Your task to perform on an android device: Add acer nitro to the cart on bestbuy, then select checkout. Image 0: 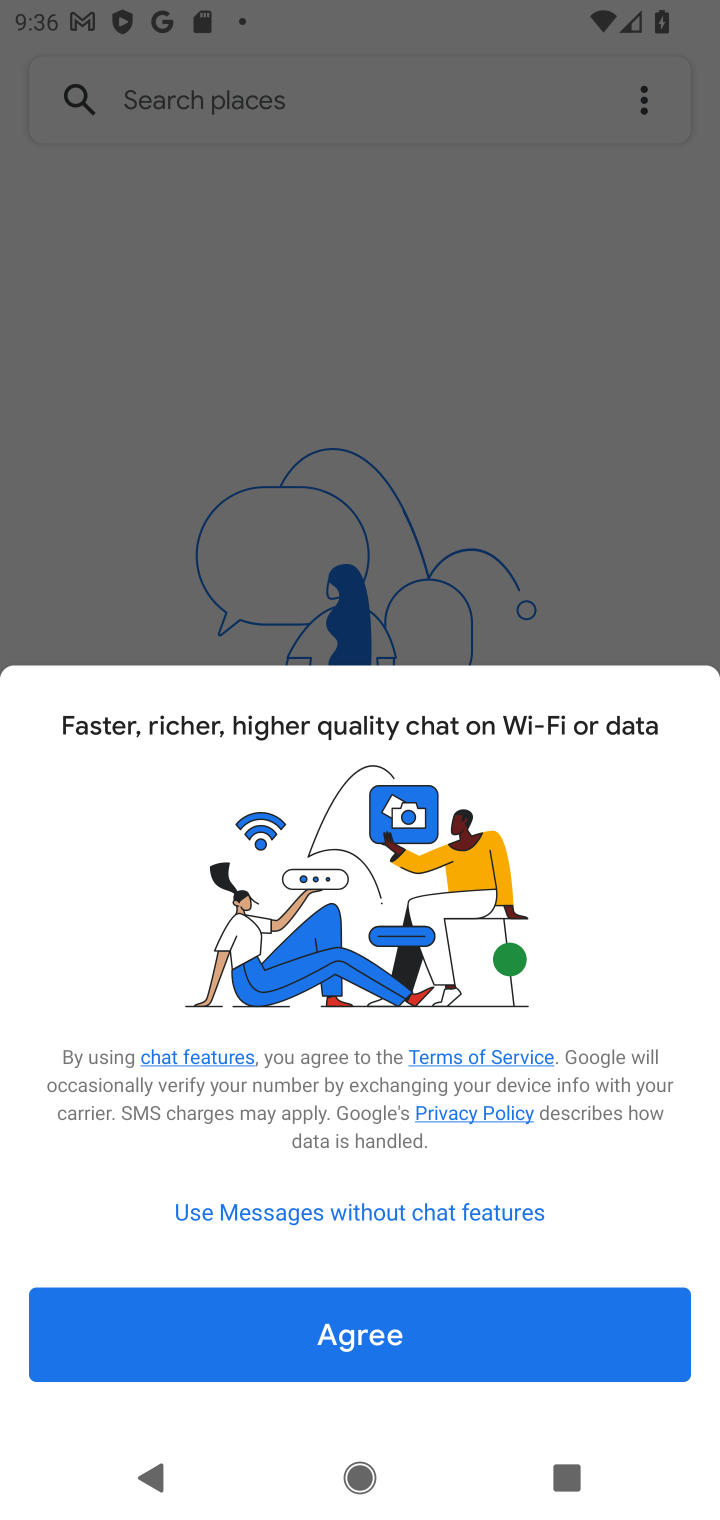
Step 0: click (516, 1350)
Your task to perform on an android device: Add acer nitro to the cart on bestbuy, then select checkout. Image 1: 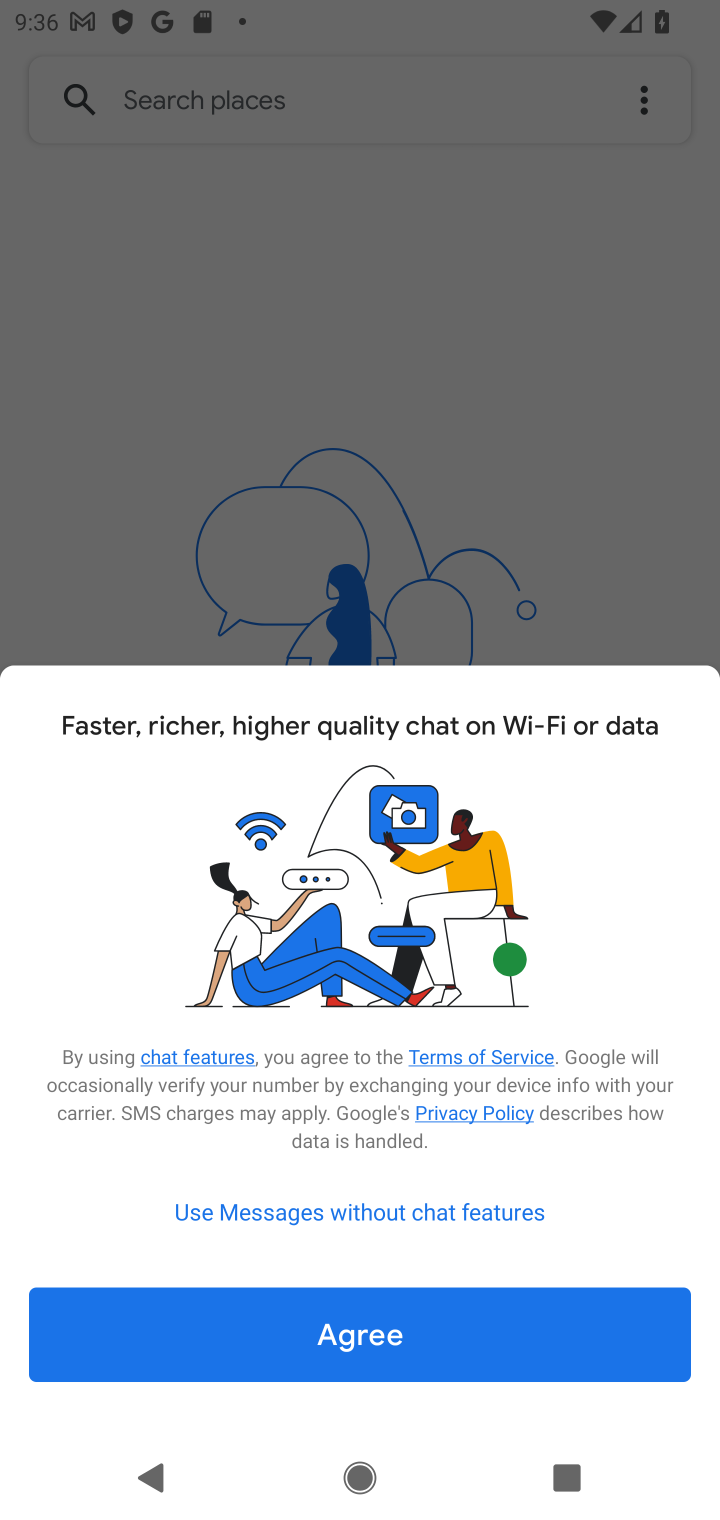
Step 1: press home button
Your task to perform on an android device: Add acer nitro to the cart on bestbuy, then select checkout. Image 2: 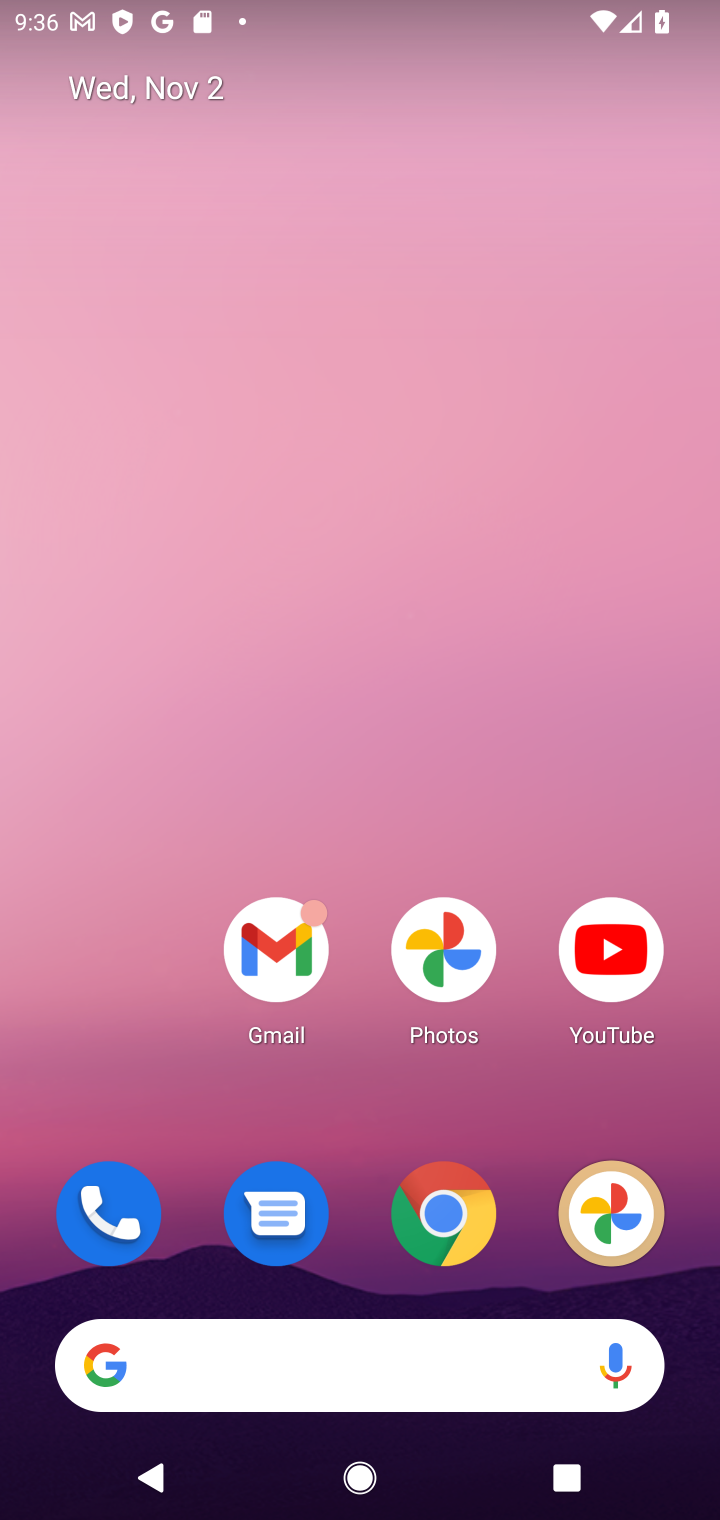
Step 2: click (431, 1208)
Your task to perform on an android device: Add acer nitro to the cart on bestbuy, then select checkout. Image 3: 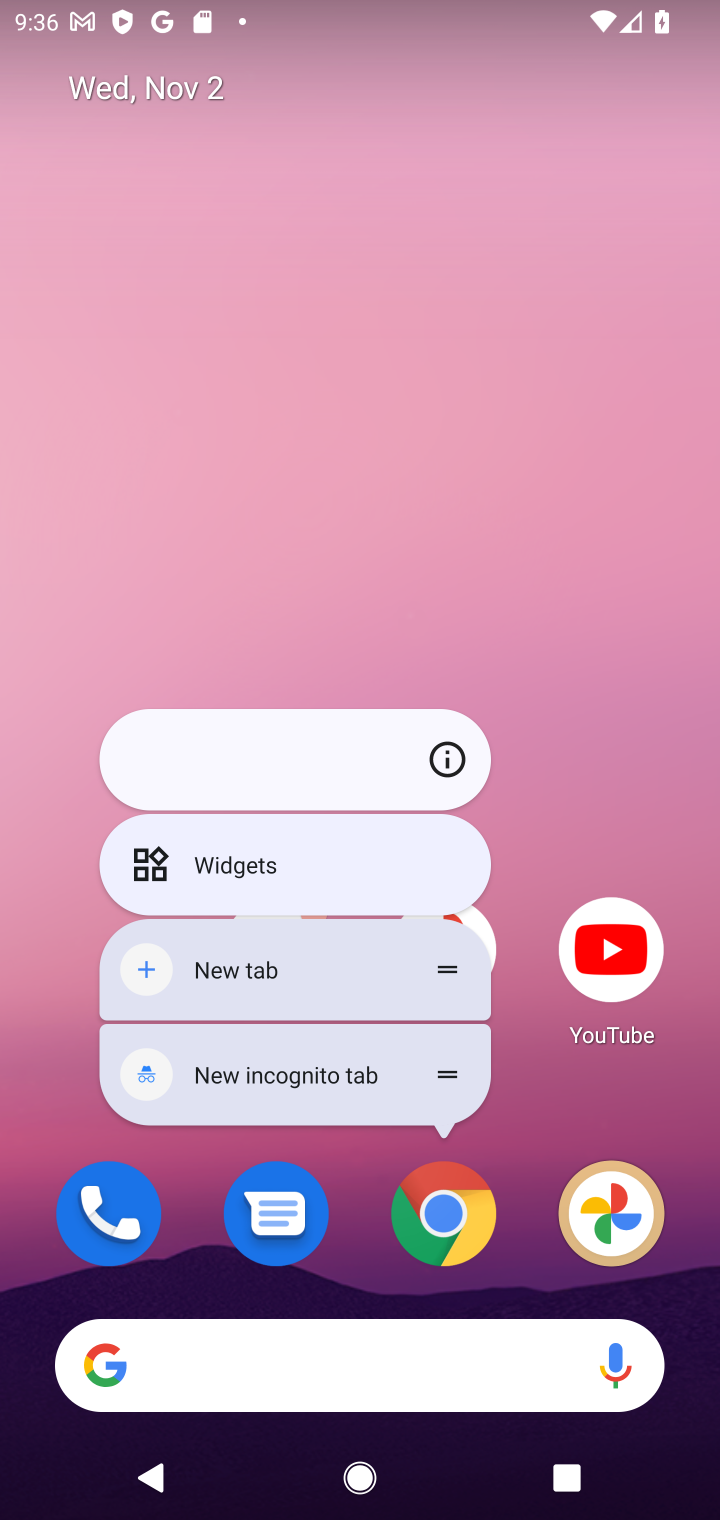
Step 3: click (449, 1234)
Your task to perform on an android device: Add acer nitro to the cart on bestbuy, then select checkout. Image 4: 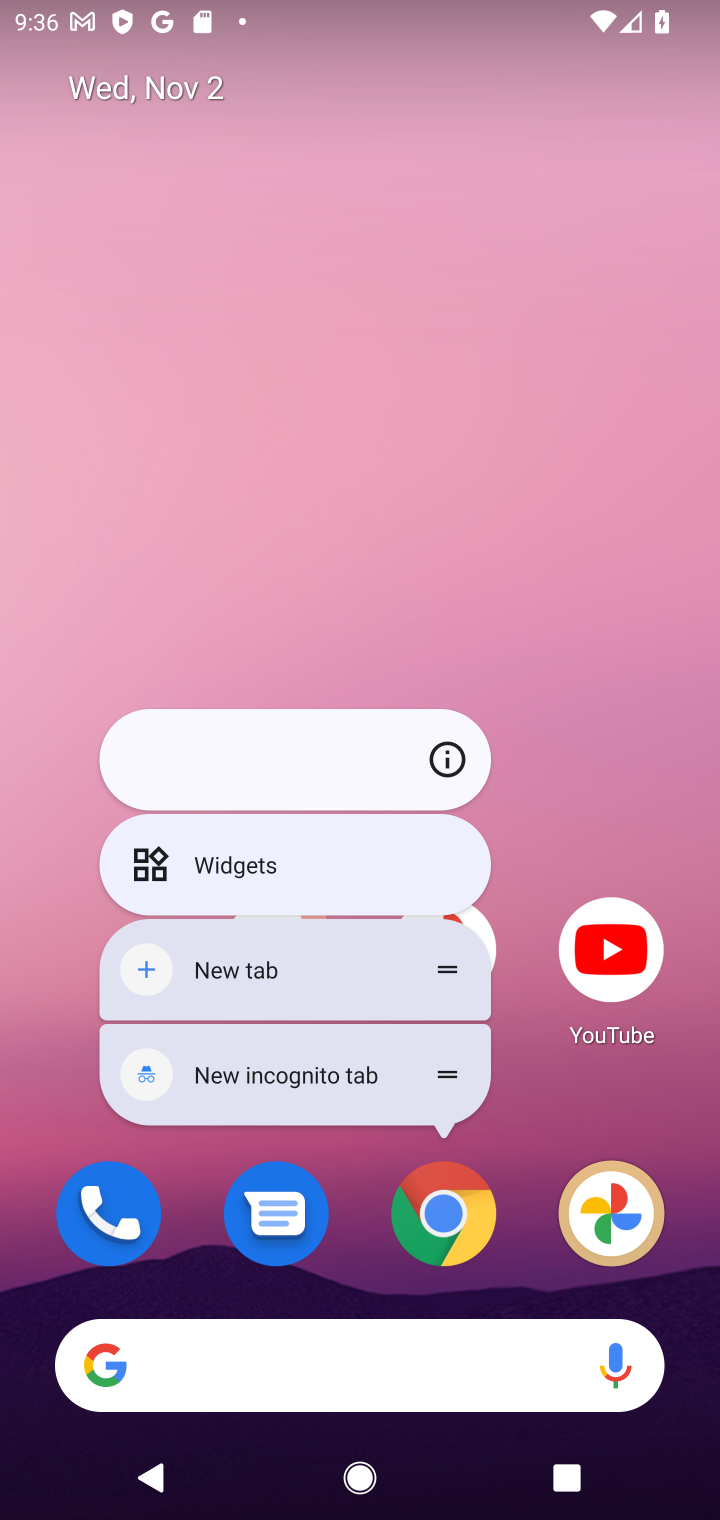
Step 4: click (442, 1212)
Your task to perform on an android device: Add acer nitro to the cart on bestbuy, then select checkout. Image 5: 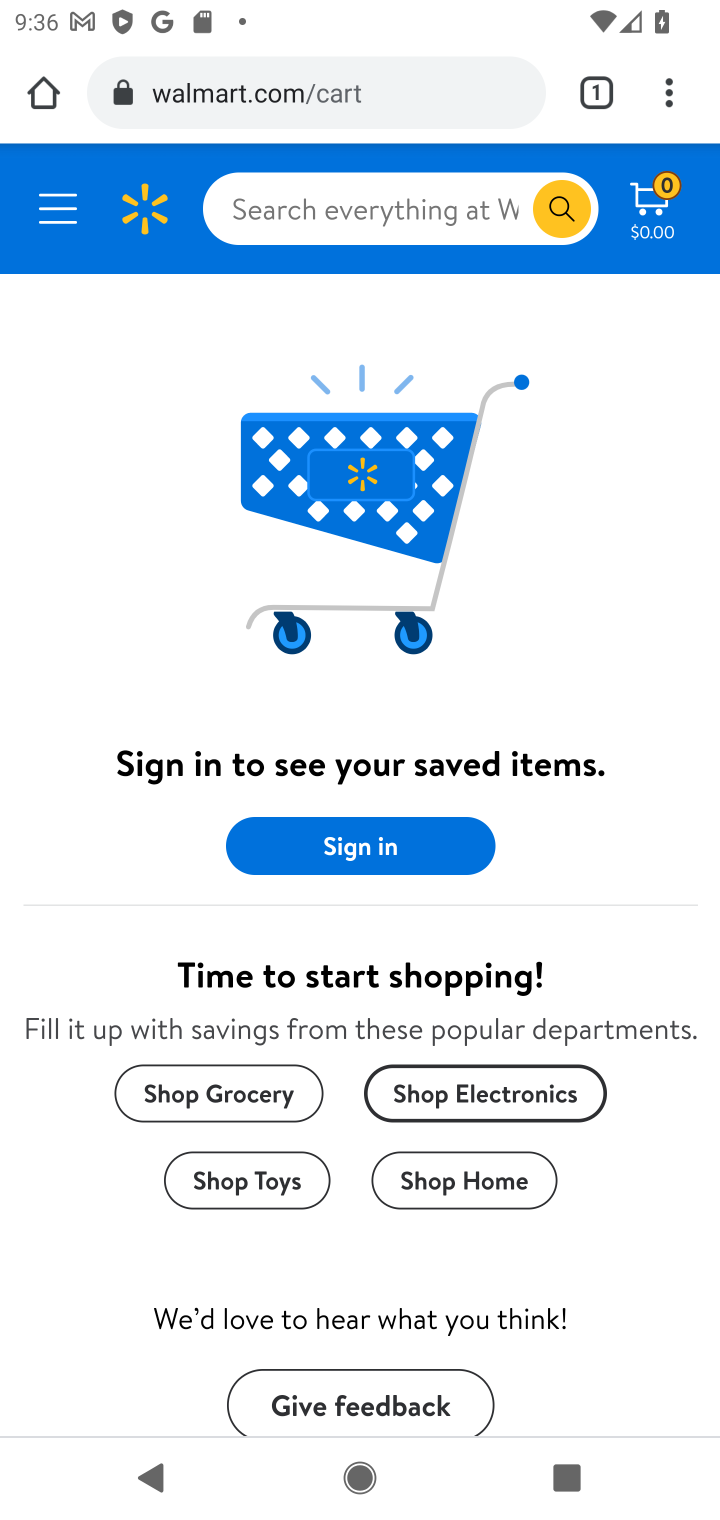
Step 5: click (289, 92)
Your task to perform on an android device: Add acer nitro to the cart on bestbuy, then select checkout. Image 6: 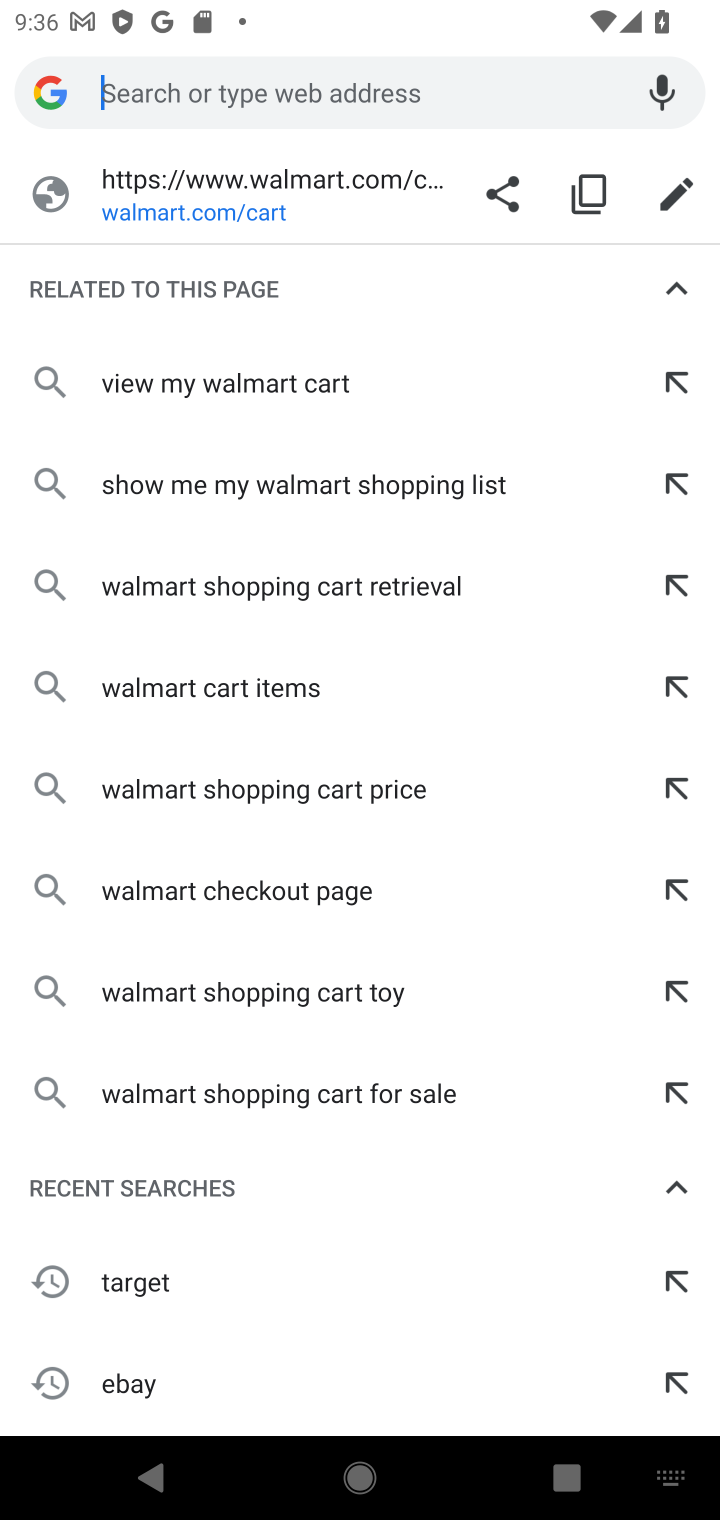
Step 6: type "bestbuy"
Your task to perform on an android device: Add acer nitro to the cart on bestbuy, then select checkout. Image 7: 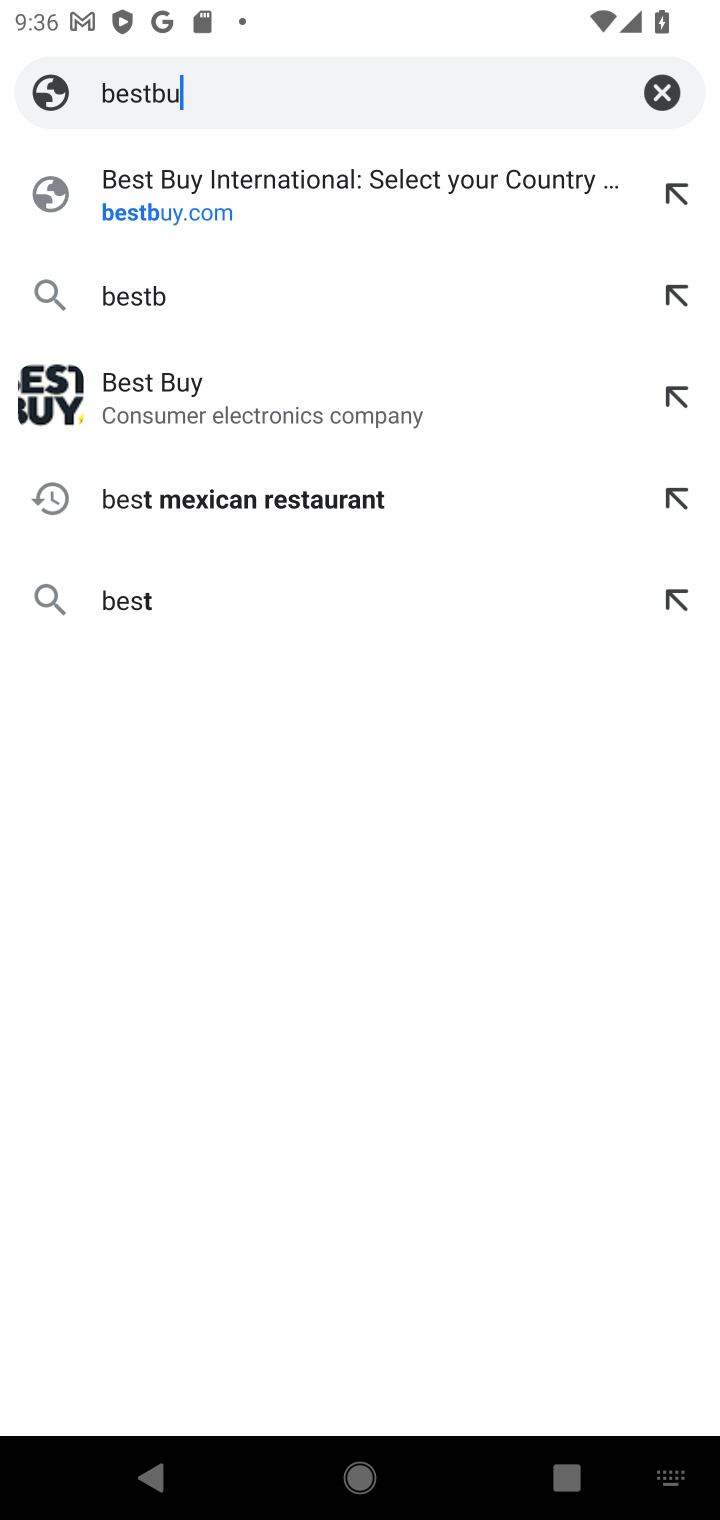
Step 7: type ""
Your task to perform on an android device: Add acer nitro to the cart on bestbuy, then select checkout. Image 8: 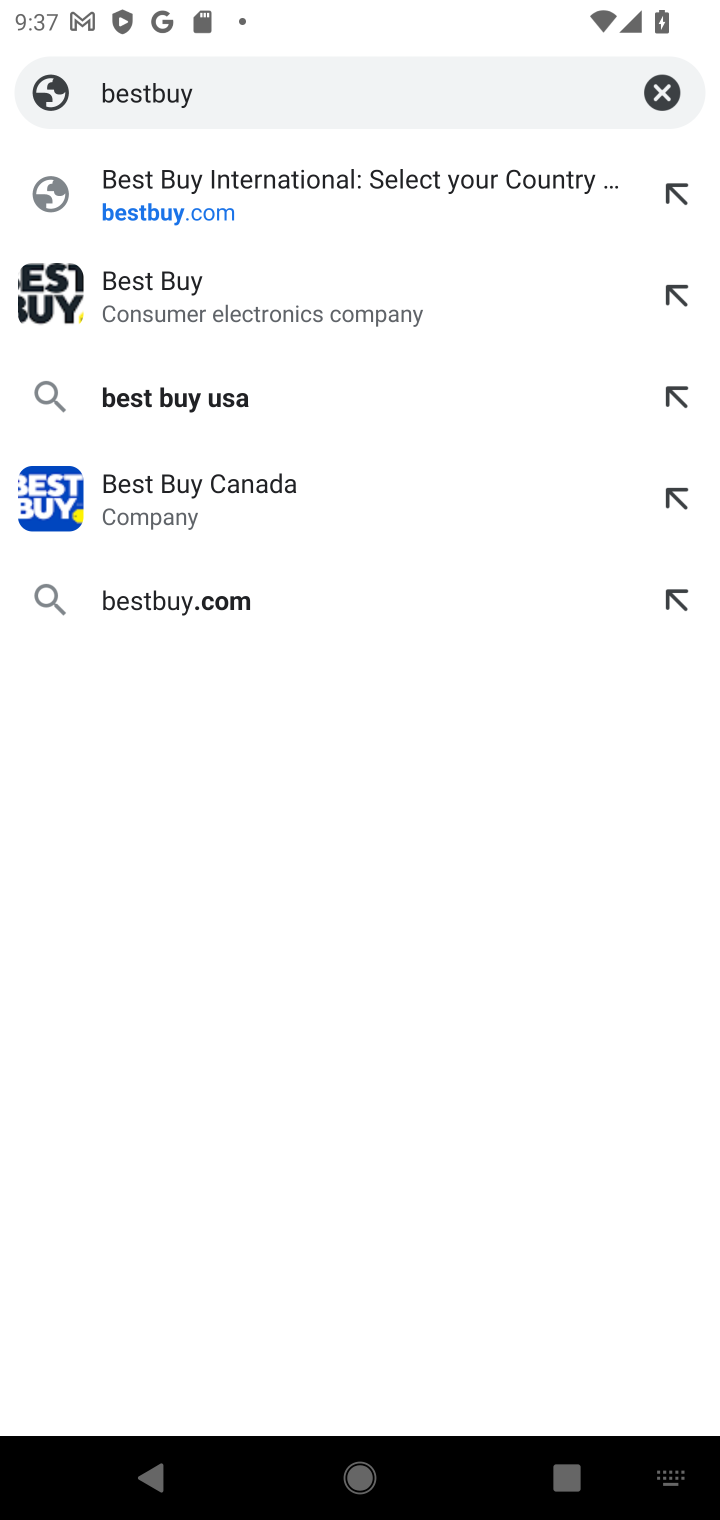
Step 8: click (439, 202)
Your task to perform on an android device: Add acer nitro to the cart on bestbuy, then select checkout. Image 9: 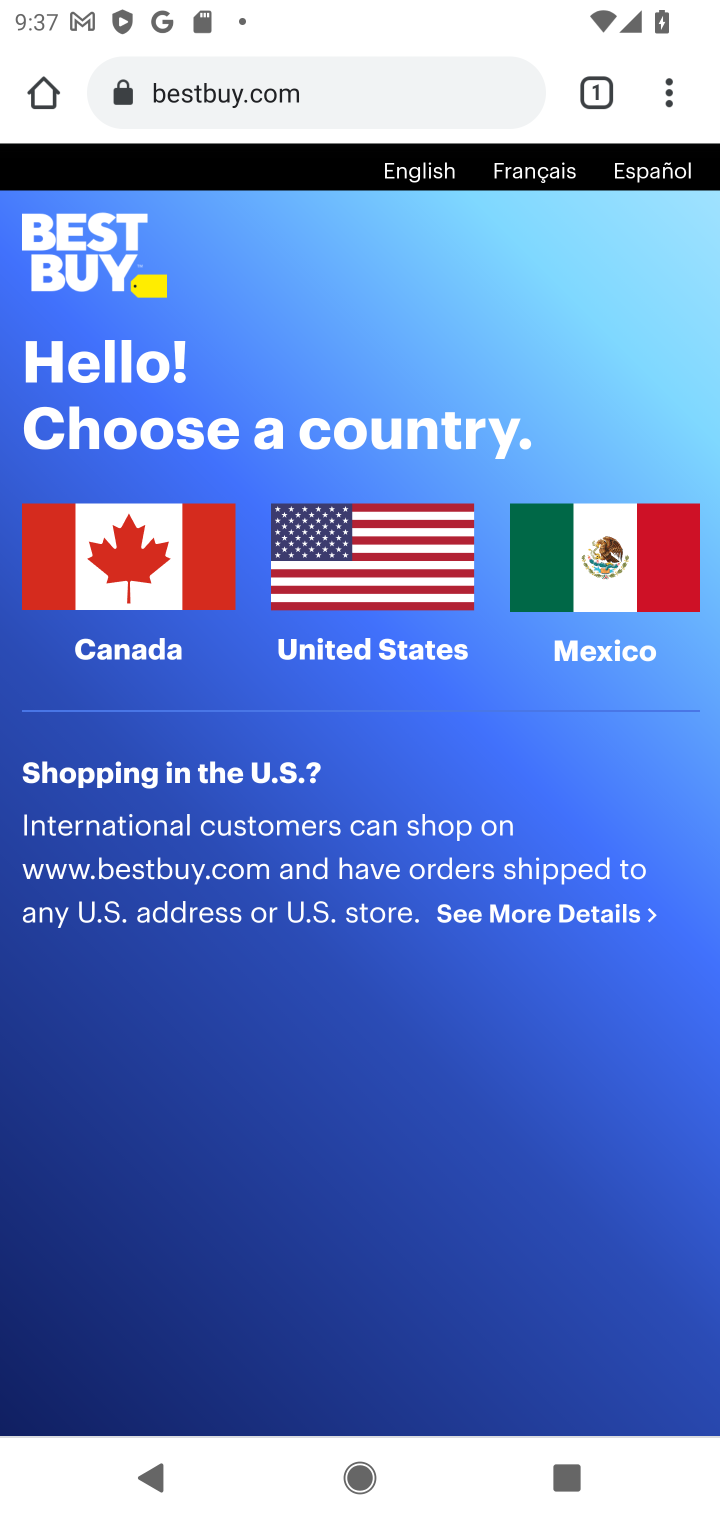
Step 9: click (313, 601)
Your task to perform on an android device: Add acer nitro to the cart on bestbuy, then select checkout. Image 10: 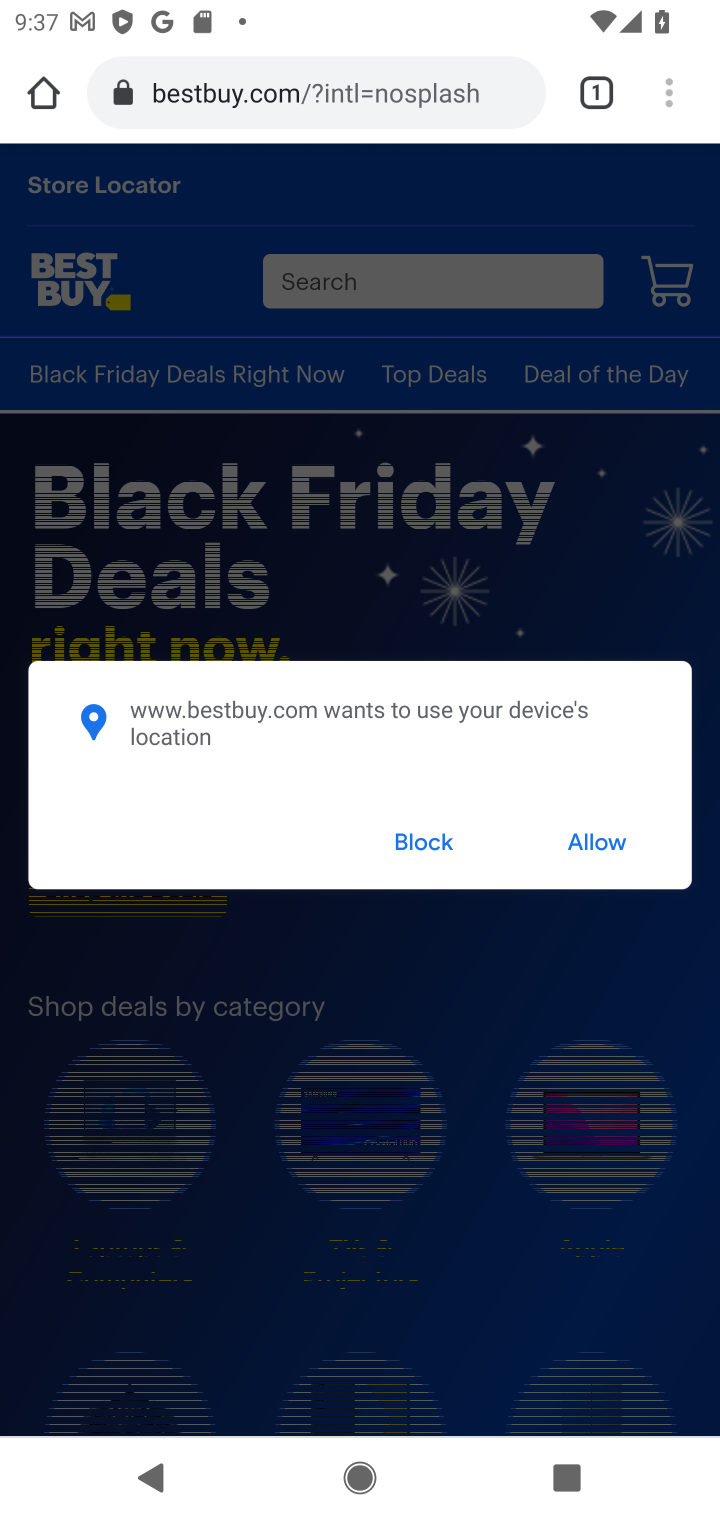
Step 10: click (407, 846)
Your task to perform on an android device: Add acer nitro to the cart on bestbuy, then select checkout. Image 11: 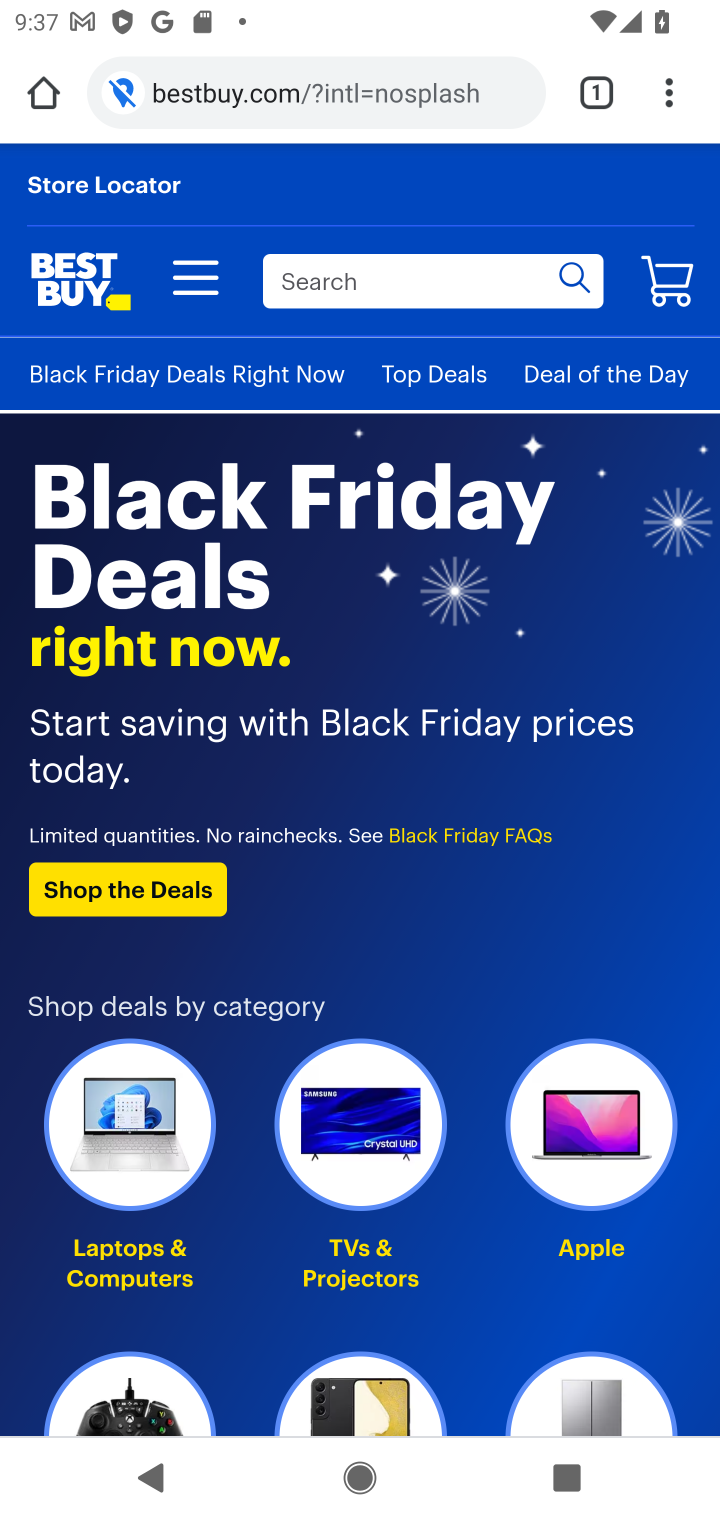
Step 11: click (391, 280)
Your task to perform on an android device: Add acer nitro to the cart on bestbuy, then select checkout. Image 12: 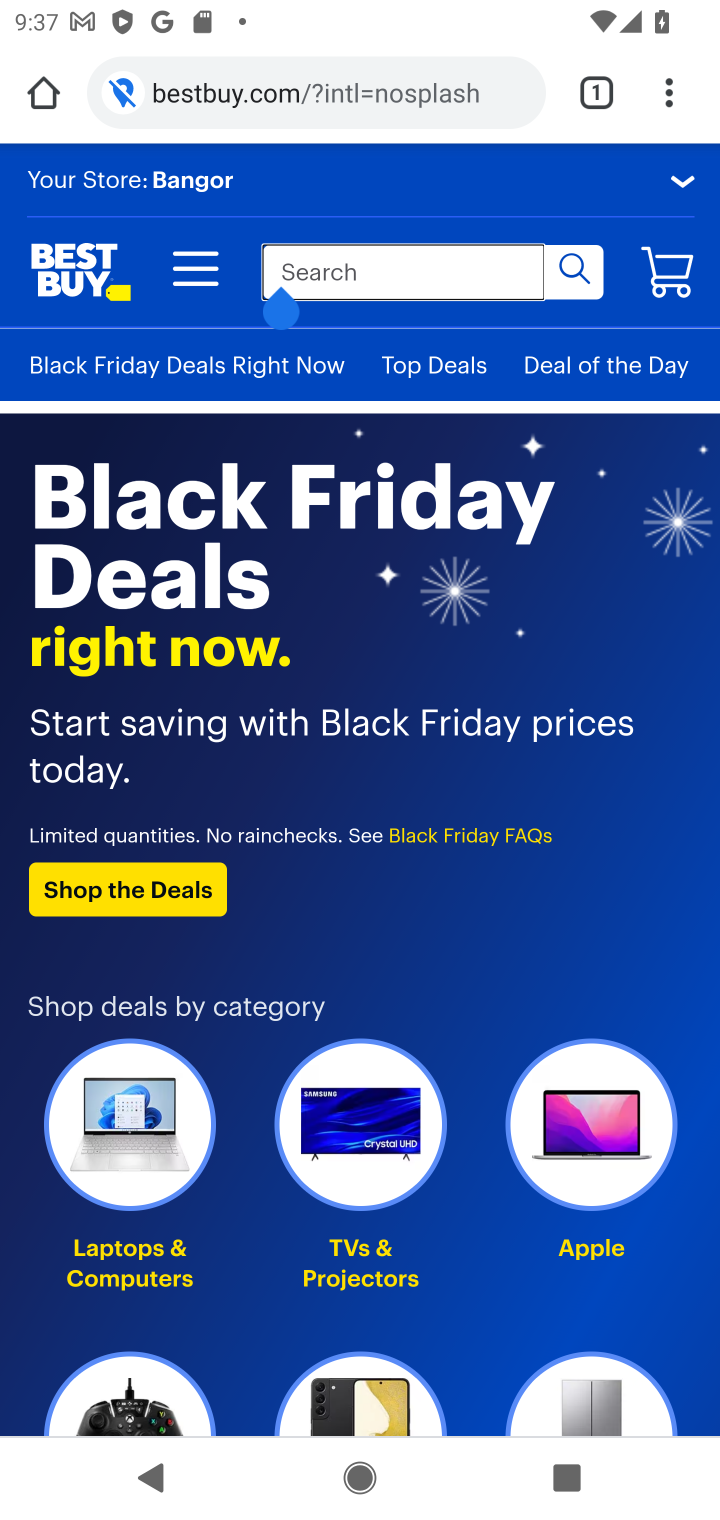
Step 12: type "acer nitro"
Your task to perform on an android device: Add acer nitro to the cart on bestbuy, then select checkout. Image 13: 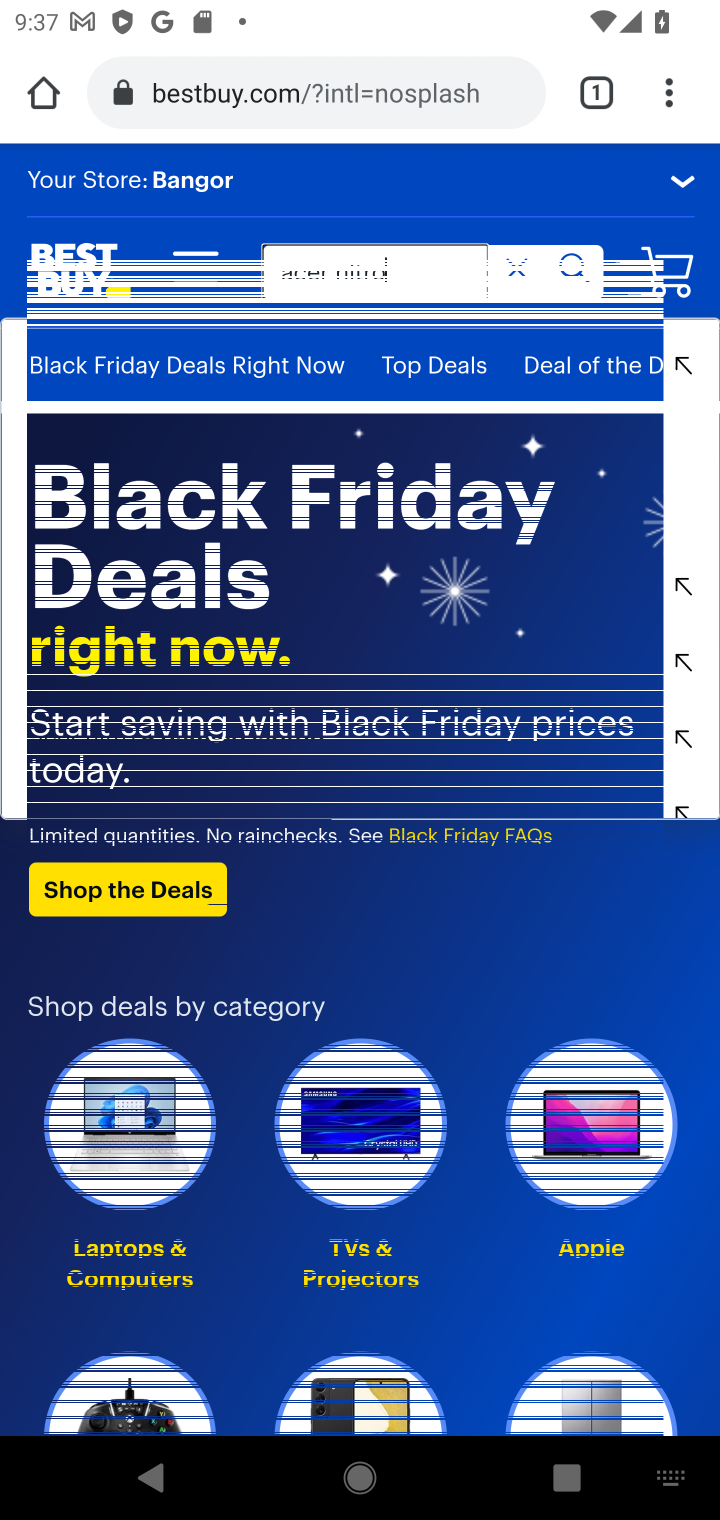
Step 13: click (565, 280)
Your task to perform on an android device: Add acer nitro to the cart on bestbuy, then select checkout. Image 14: 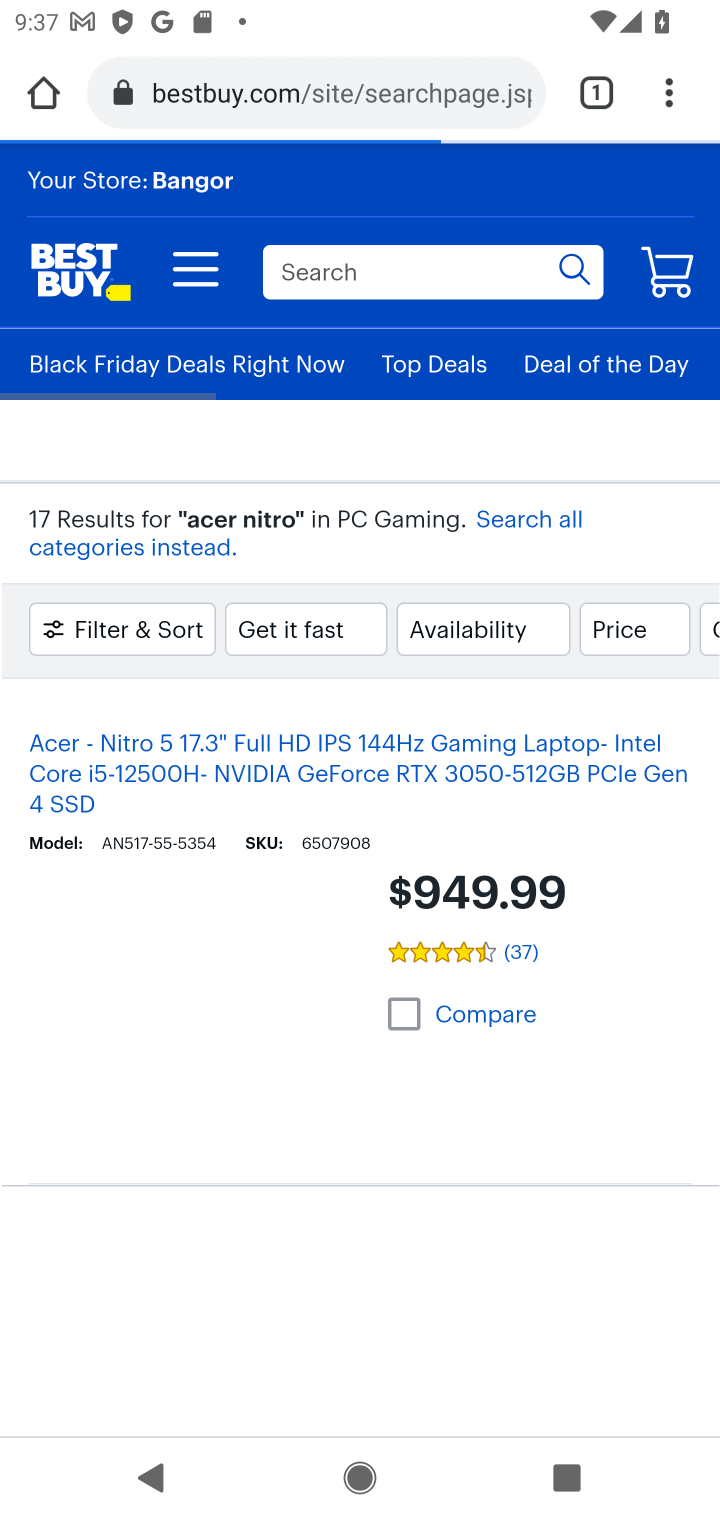
Step 14: click (114, 286)
Your task to perform on an android device: Add acer nitro to the cart on bestbuy, then select checkout. Image 15: 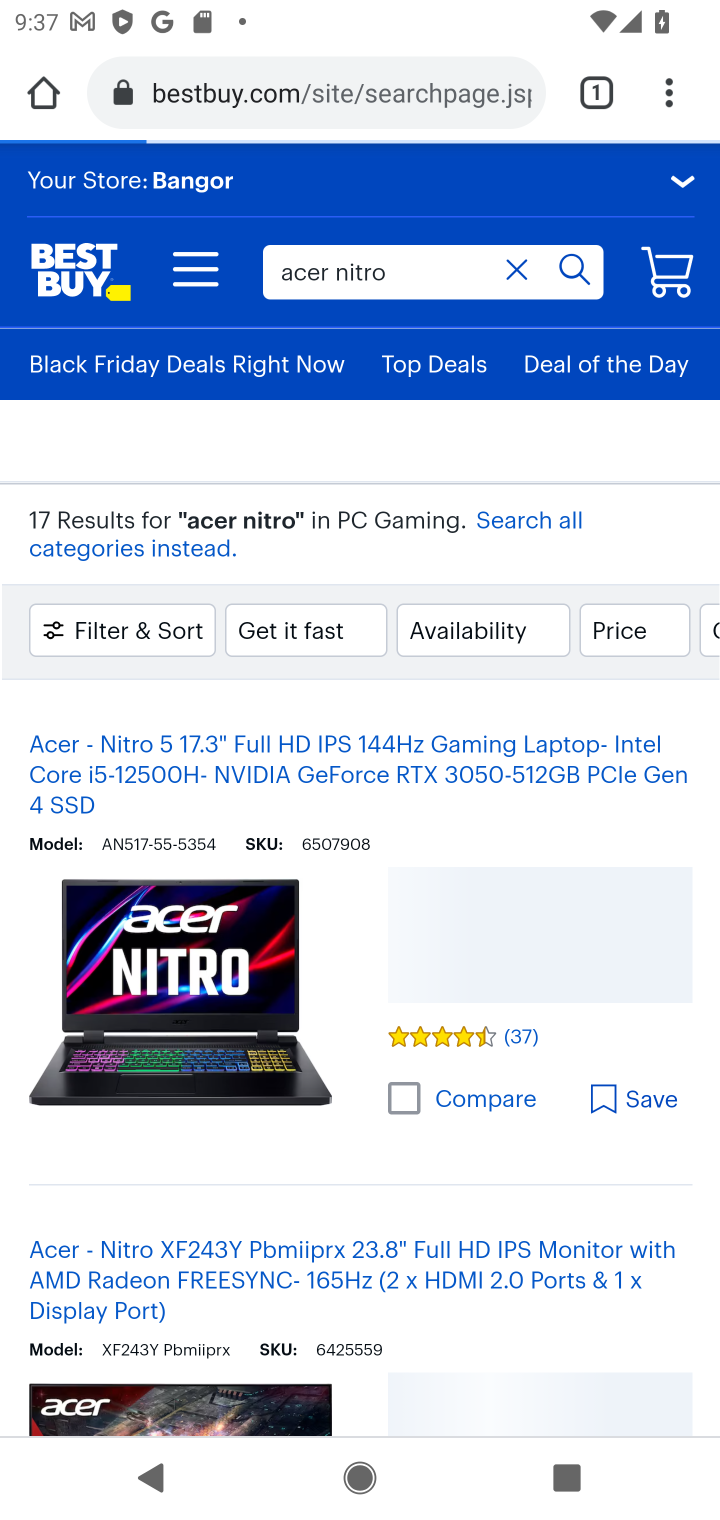
Step 15: click (262, 1256)
Your task to perform on an android device: Add acer nitro to the cart on bestbuy, then select checkout. Image 16: 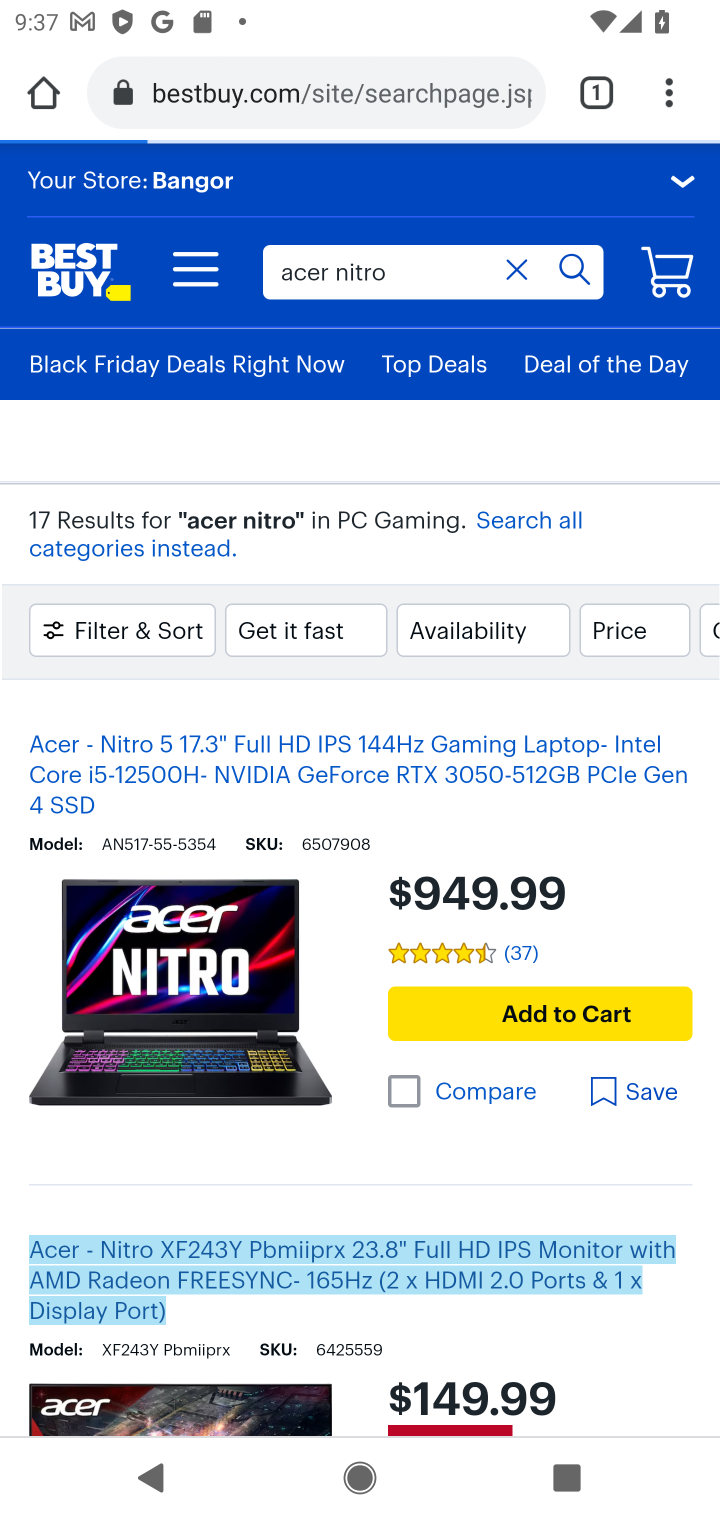
Step 16: click (317, 761)
Your task to perform on an android device: Add acer nitro to the cart on bestbuy, then select checkout. Image 17: 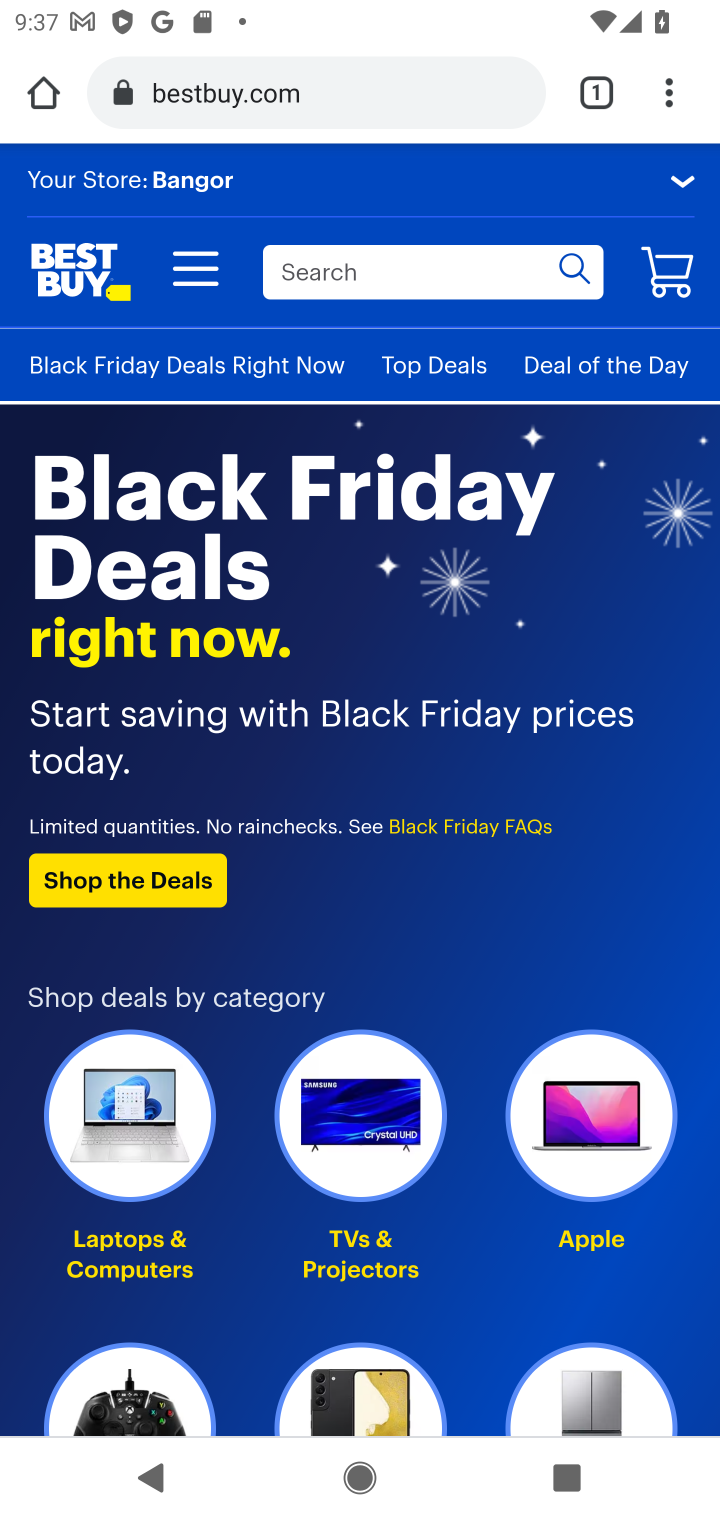
Step 17: press back button
Your task to perform on an android device: Add acer nitro to the cart on bestbuy, then select checkout. Image 18: 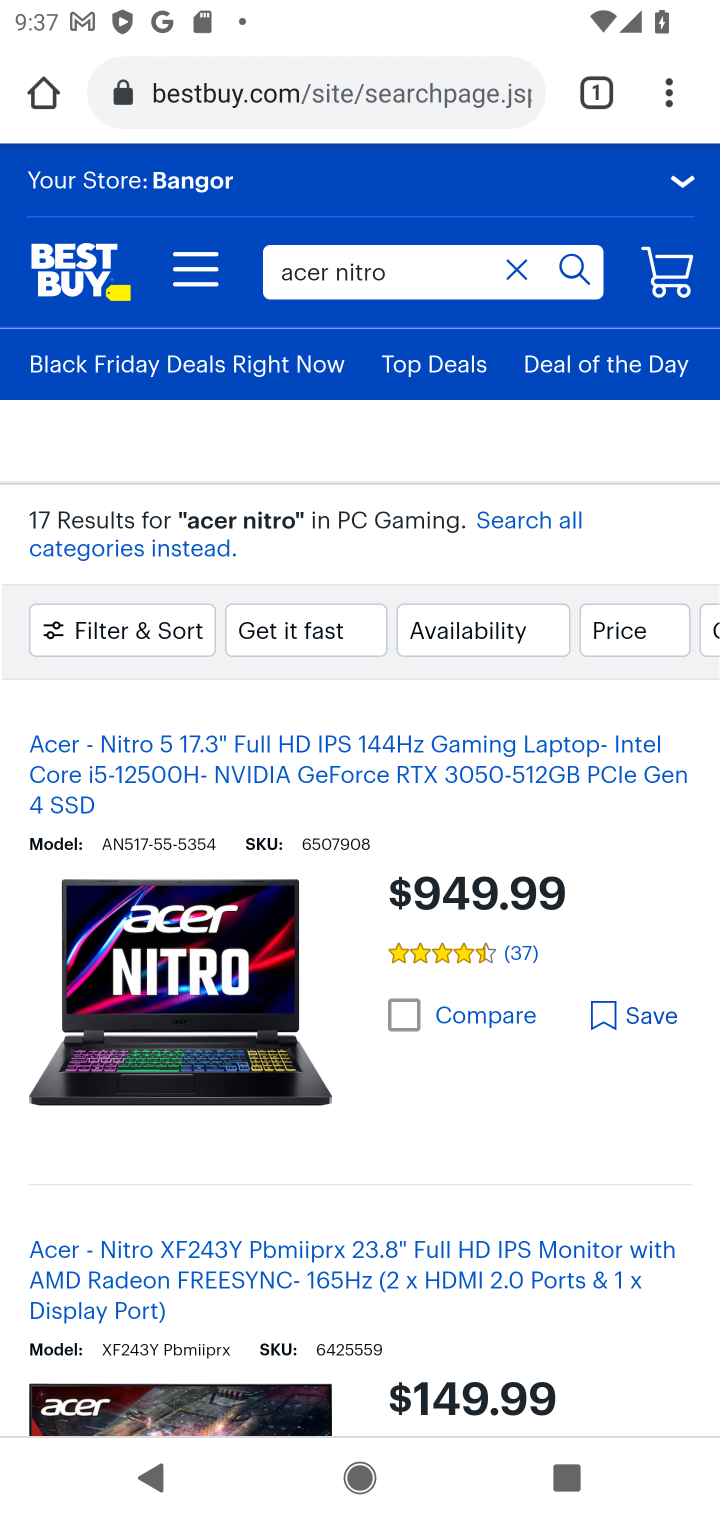
Step 18: click (272, 766)
Your task to perform on an android device: Add acer nitro to the cart on bestbuy, then select checkout. Image 19: 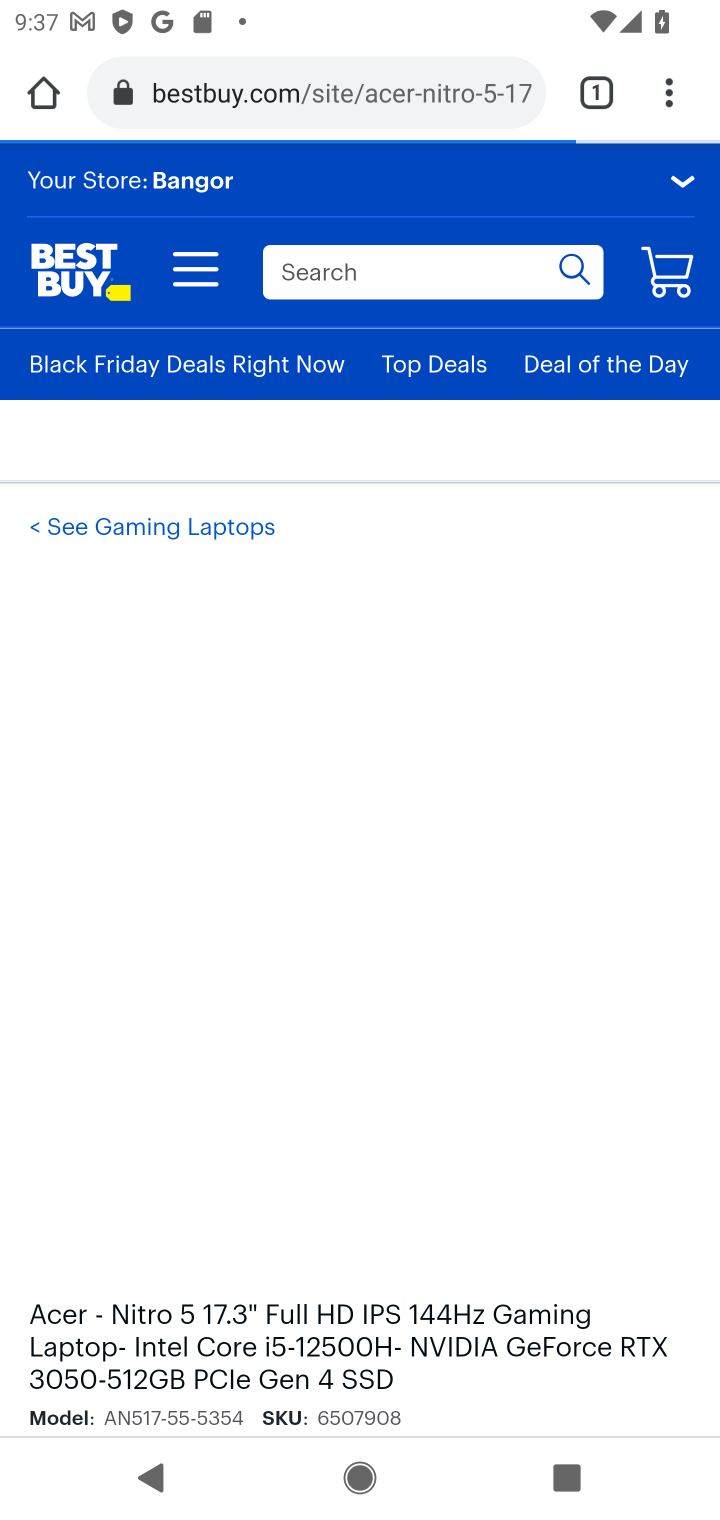
Step 19: drag from (397, 1045) to (456, 636)
Your task to perform on an android device: Add acer nitro to the cart on bestbuy, then select checkout. Image 20: 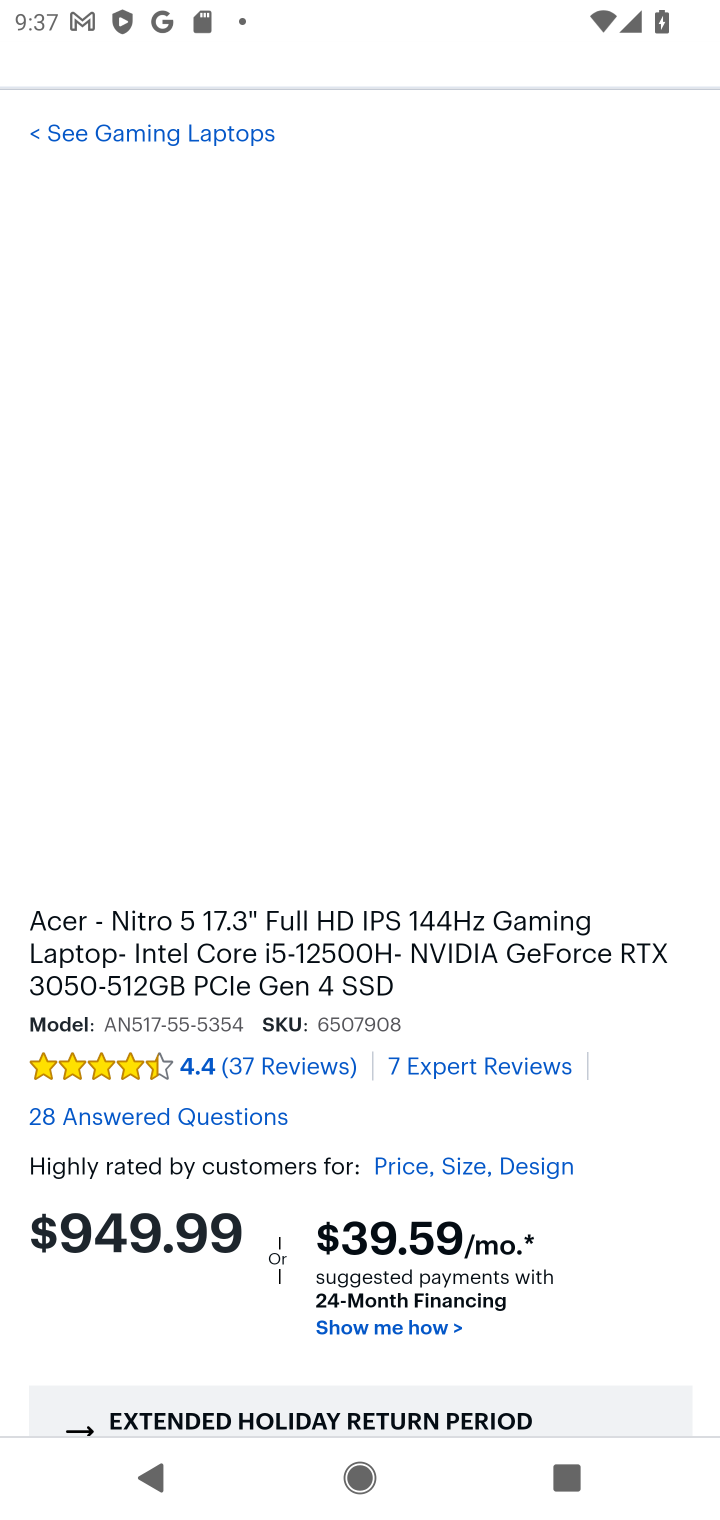
Step 20: drag from (455, 1042) to (487, 221)
Your task to perform on an android device: Add acer nitro to the cart on bestbuy, then select checkout. Image 21: 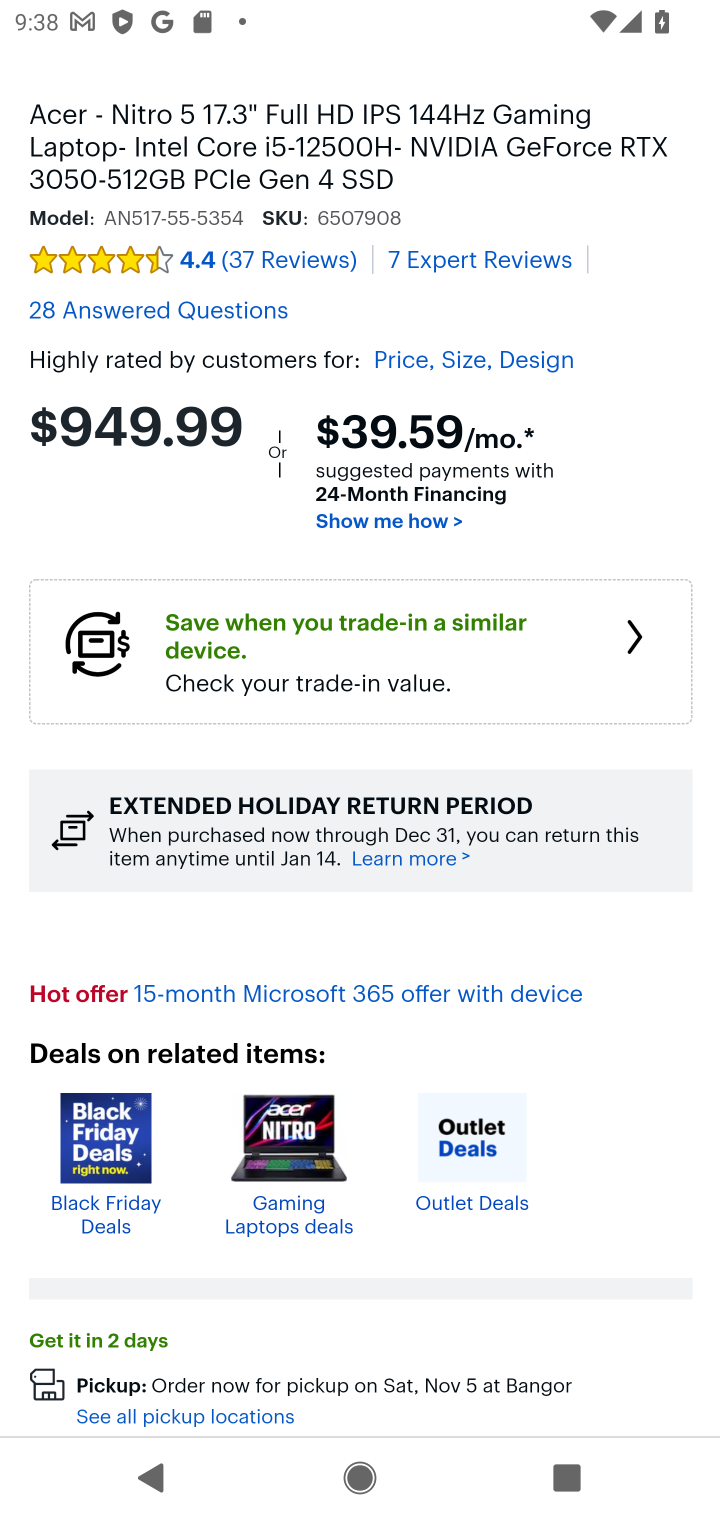
Step 21: drag from (391, 1300) to (436, 636)
Your task to perform on an android device: Add acer nitro to the cart on bestbuy, then select checkout. Image 22: 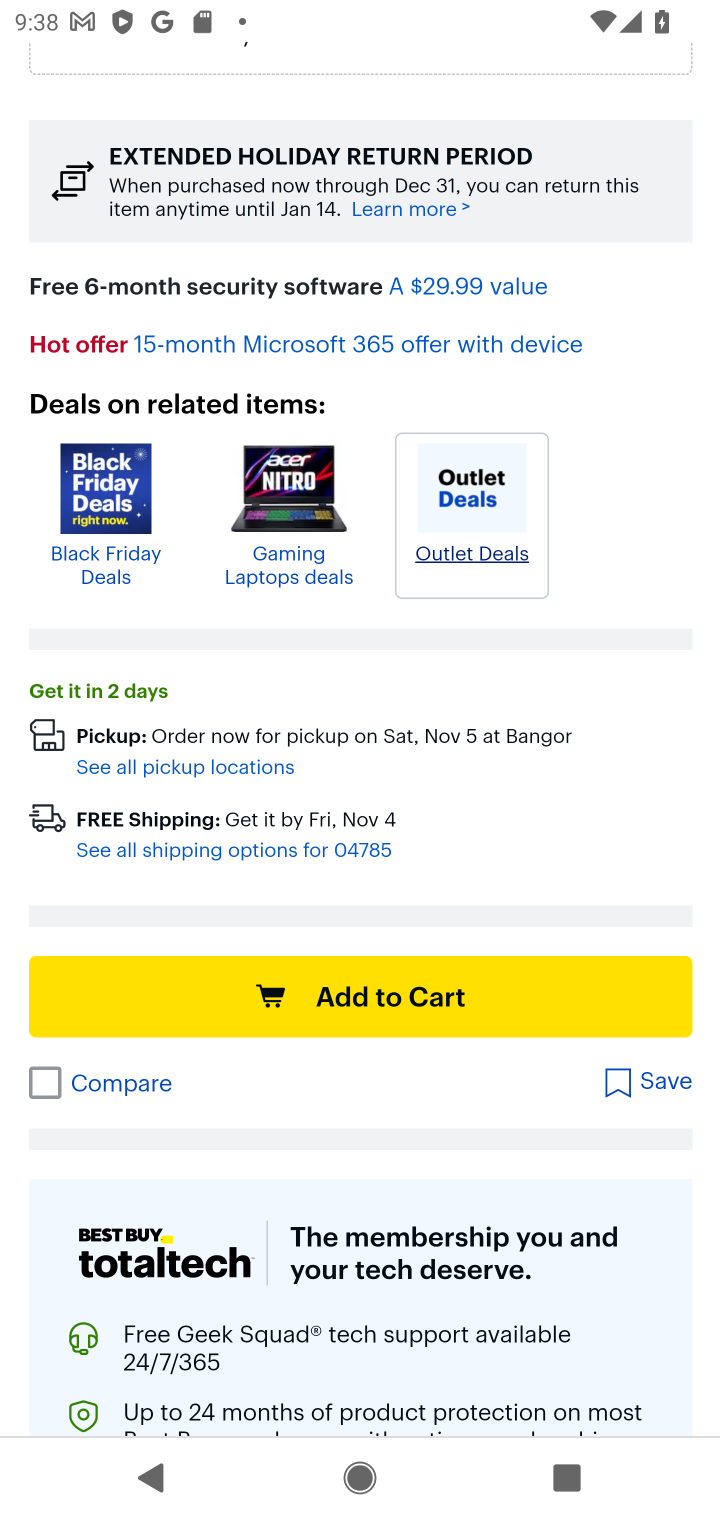
Step 22: click (454, 989)
Your task to perform on an android device: Add acer nitro to the cart on bestbuy, then select checkout. Image 23: 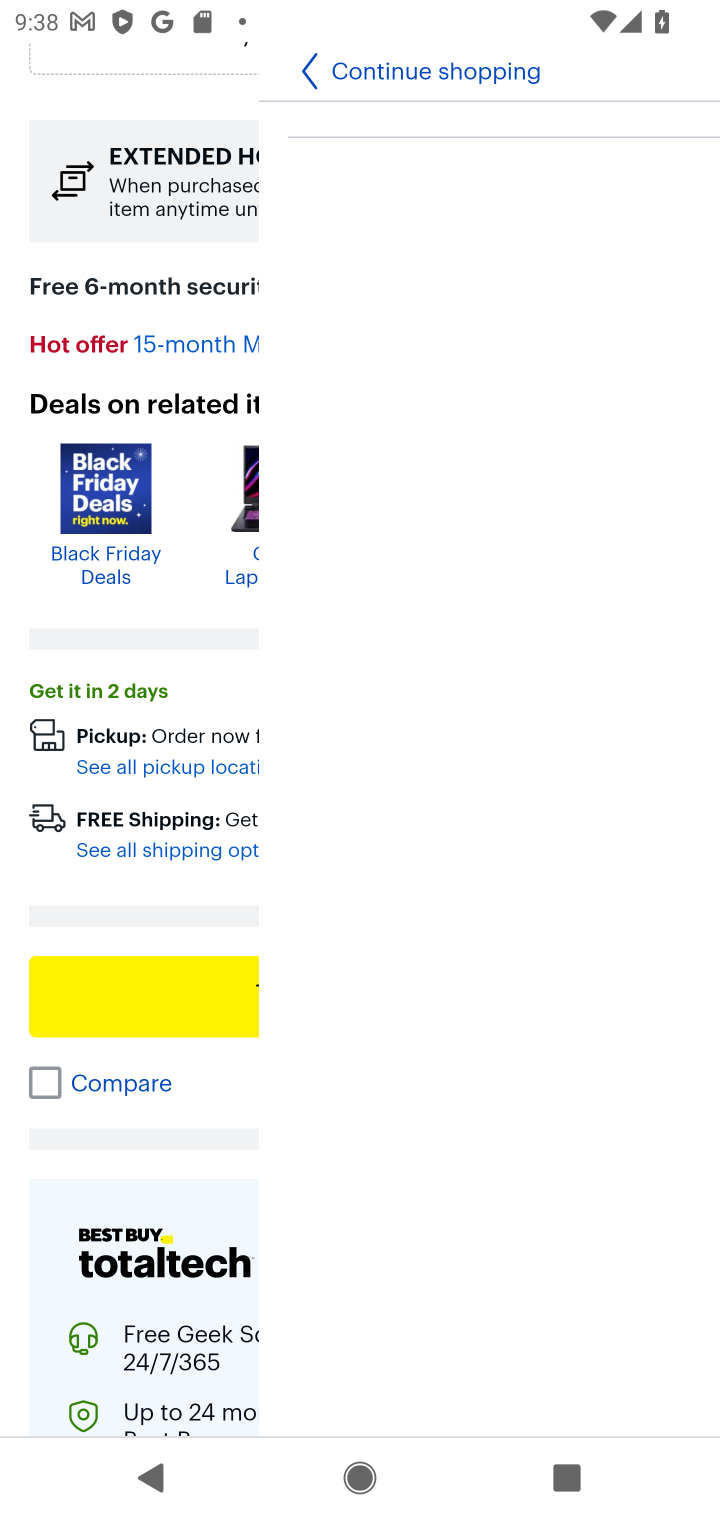
Step 23: click (450, 987)
Your task to perform on an android device: Add acer nitro to the cart on bestbuy, then select checkout. Image 24: 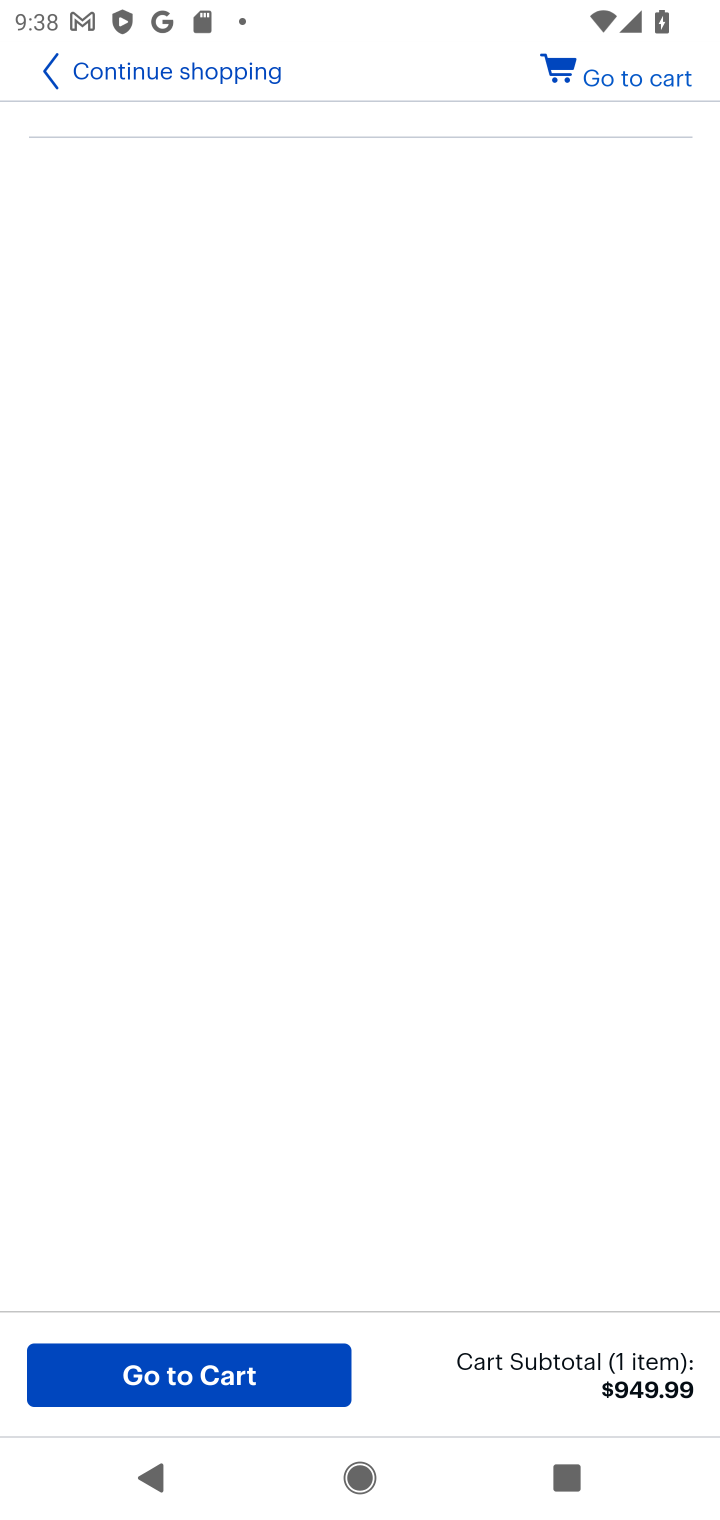
Step 24: click (628, 69)
Your task to perform on an android device: Add acer nitro to the cart on bestbuy, then select checkout. Image 25: 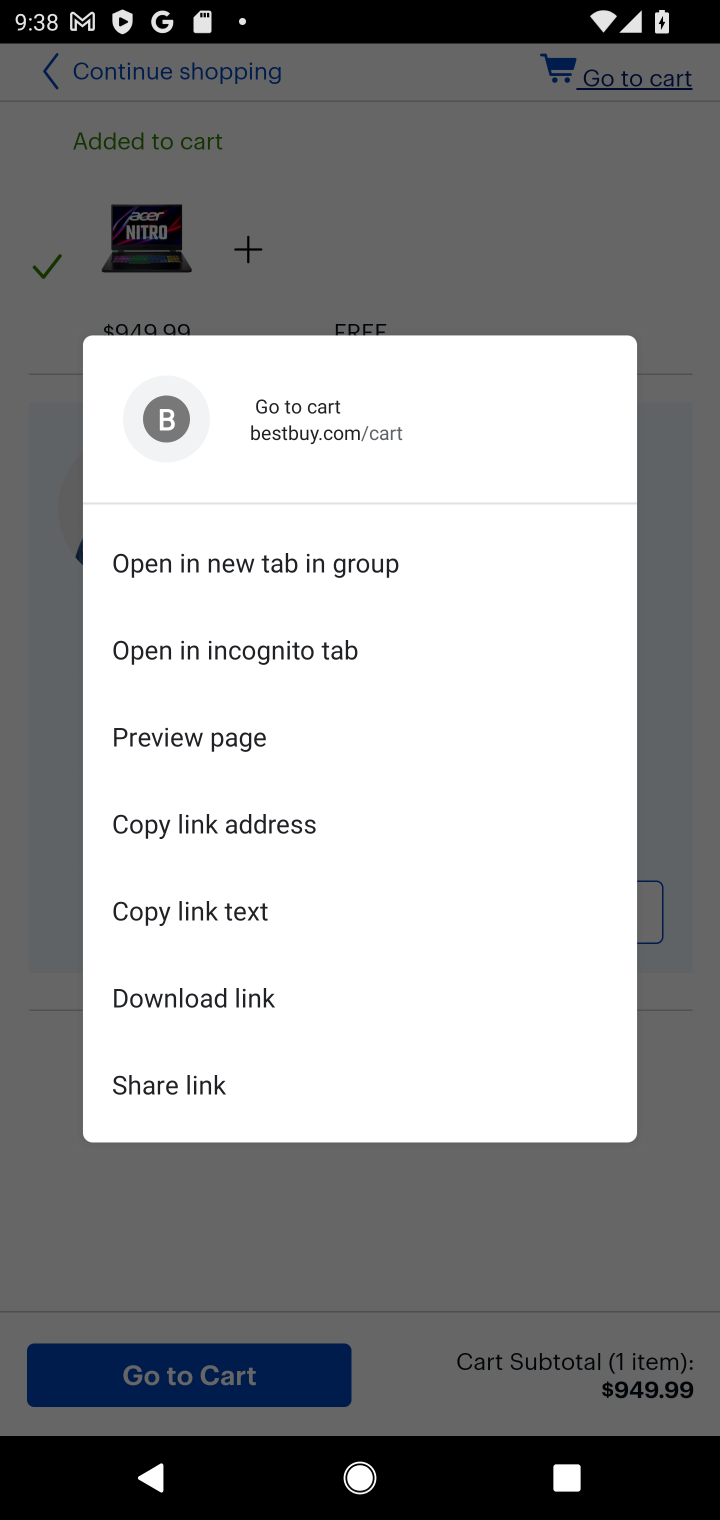
Step 25: click (632, 131)
Your task to perform on an android device: Add acer nitro to the cart on bestbuy, then select checkout. Image 26: 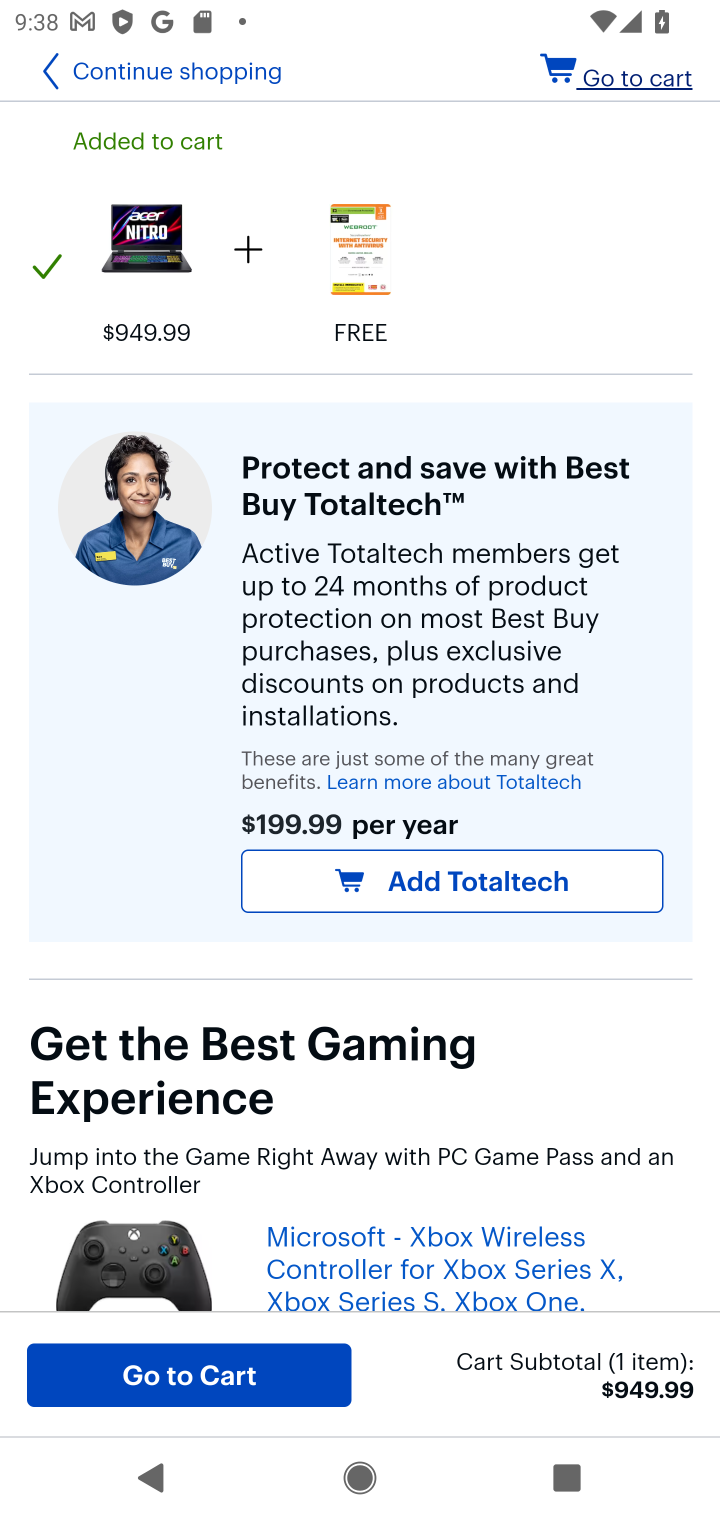
Step 26: click (632, 87)
Your task to perform on an android device: Add acer nitro to the cart on bestbuy, then select checkout. Image 27: 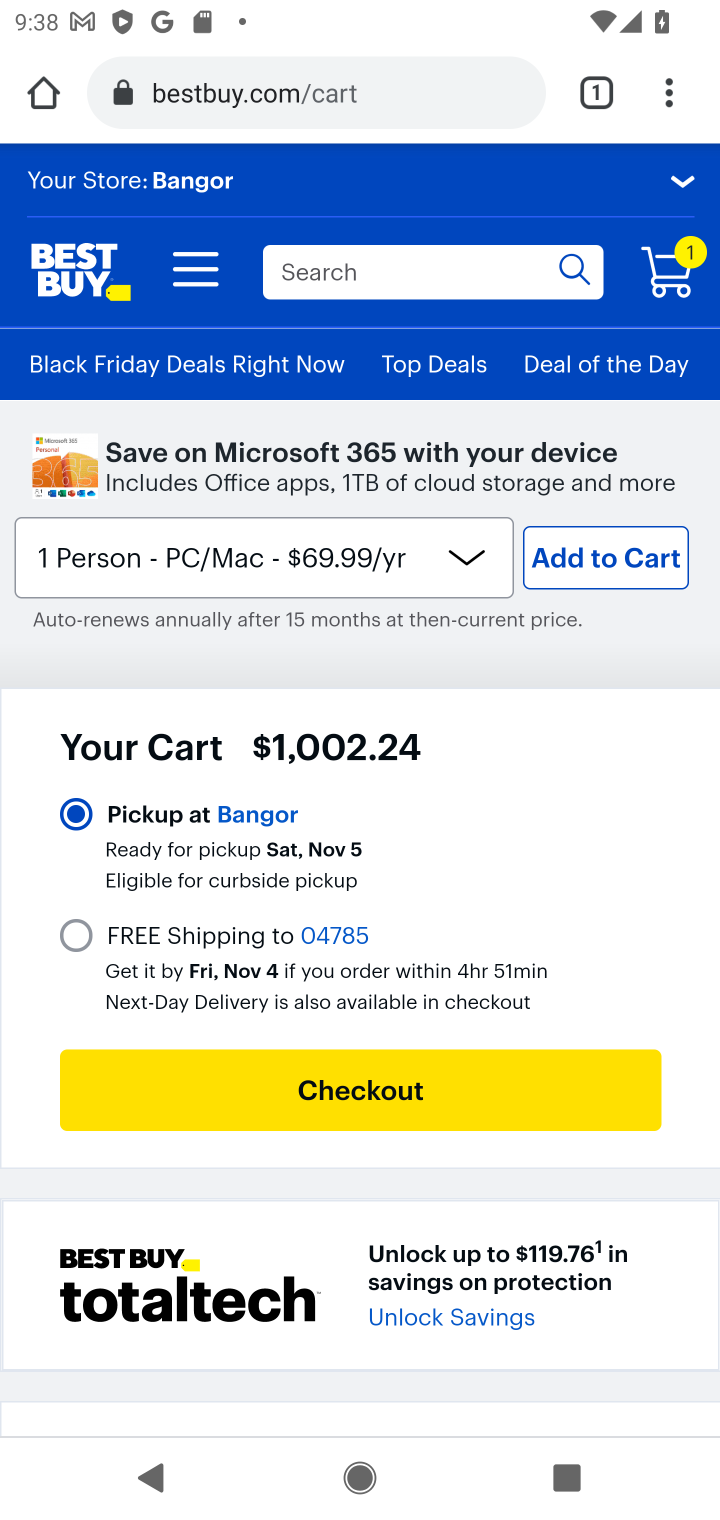
Step 27: click (402, 1093)
Your task to perform on an android device: Add acer nitro to the cart on bestbuy, then select checkout. Image 28: 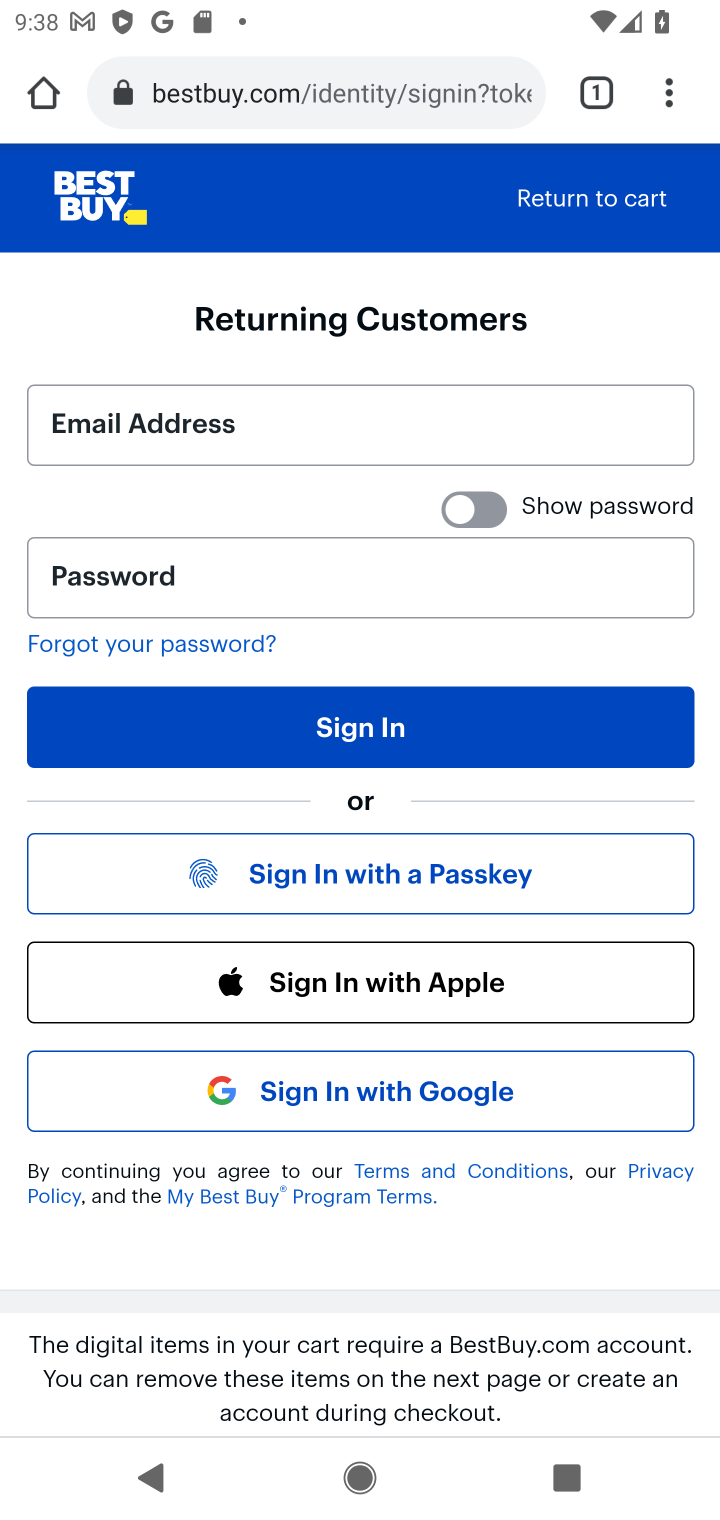
Step 28: task complete